Your task to perform on an android device: delete location history Image 0: 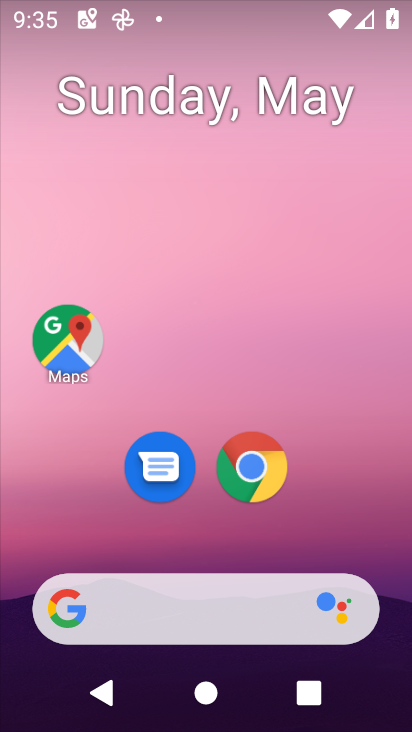
Step 0: press home button
Your task to perform on an android device: delete location history Image 1: 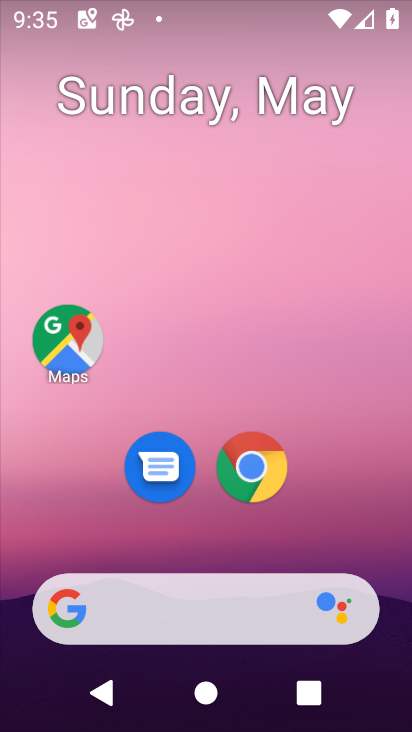
Step 1: drag from (342, 516) to (326, 191)
Your task to perform on an android device: delete location history Image 2: 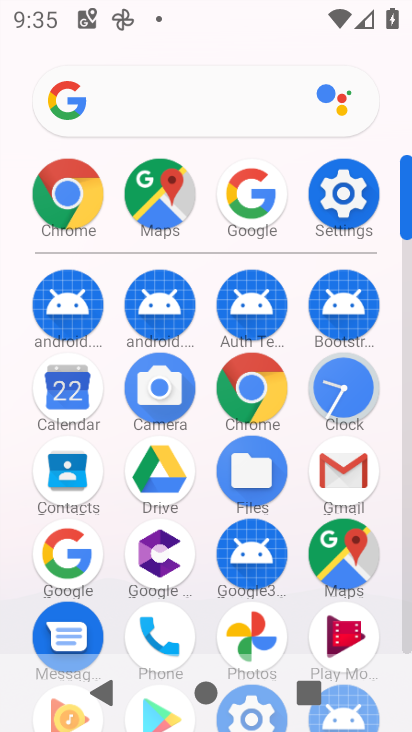
Step 2: click (355, 202)
Your task to perform on an android device: delete location history Image 3: 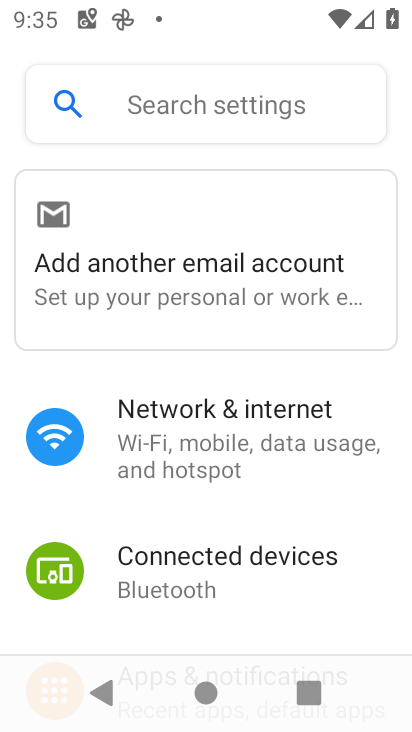
Step 3: drag from (278, 622) to (286, 312)
Your task to perform on an android device: delete location history Image 4: 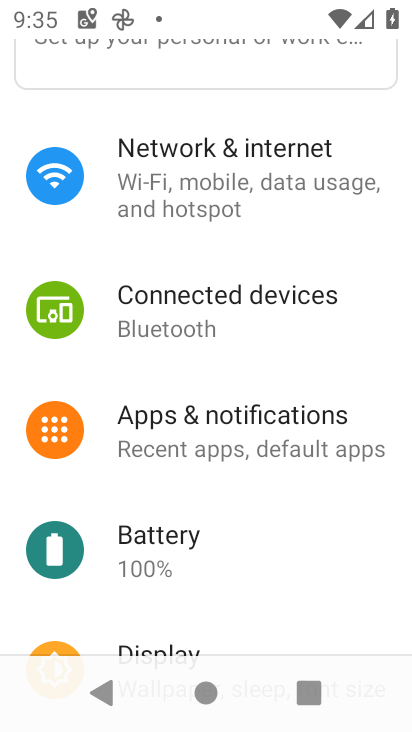
Step 4: drag from (279, 586) to (310, 263)
Your task to perform on an android device: delete location history Image 5: 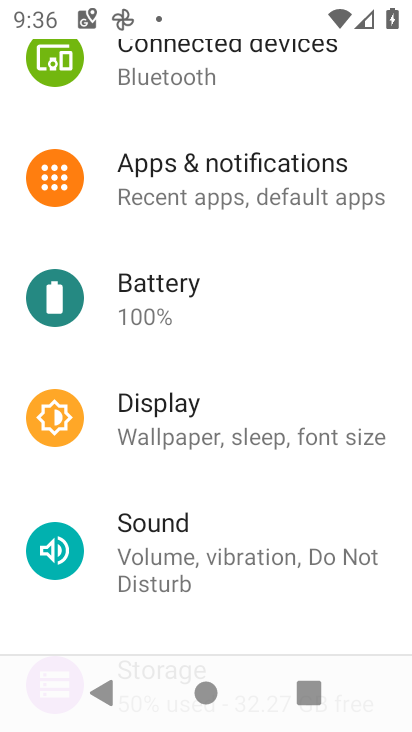
Step 5: drag from (242, 268) to (285, 152)
Your task to perform on an android device: delete location history Image 6: 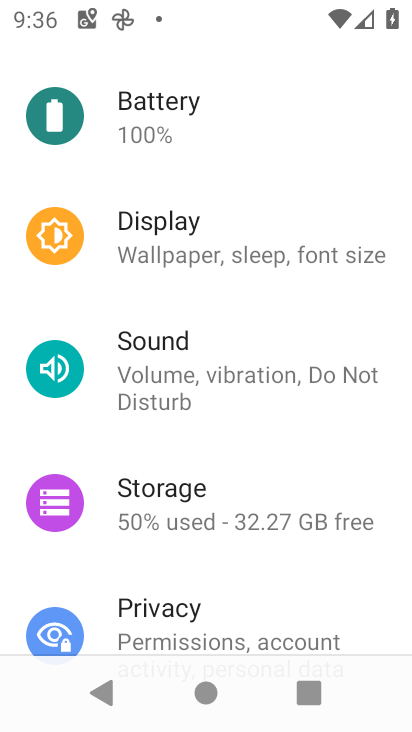
Step 6: drag from (217, 605) to (270, 245)
Your task to perform on an android device: delete location history Image 7: 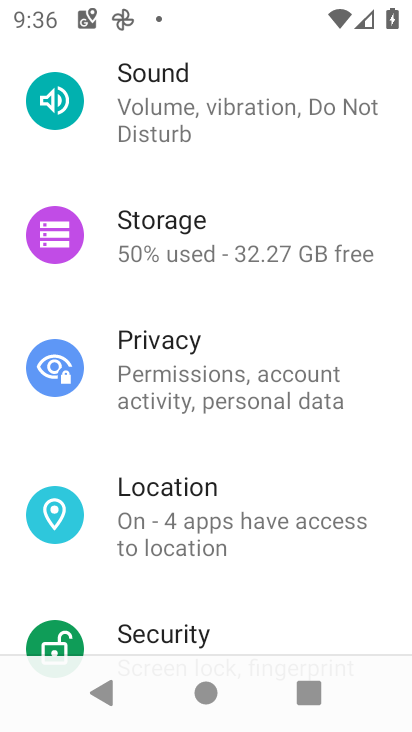
Step 7: click (215, 531)
Your task to perform on an android device: delete location history Image 8: 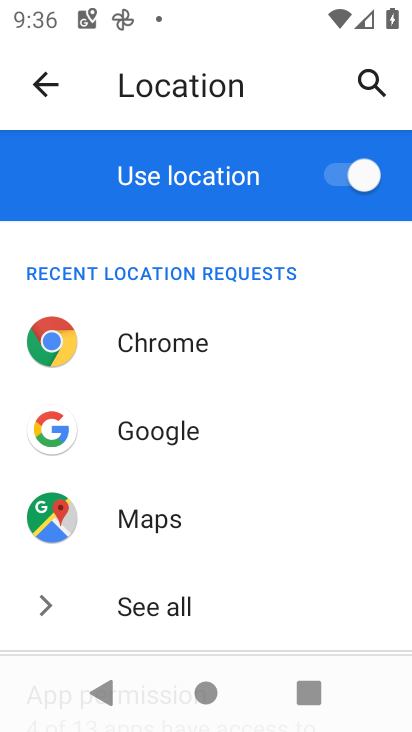
Step 8: drag from (230, 557) to (230, 253)
Your task to perform on an android device: delete location history Image 9: 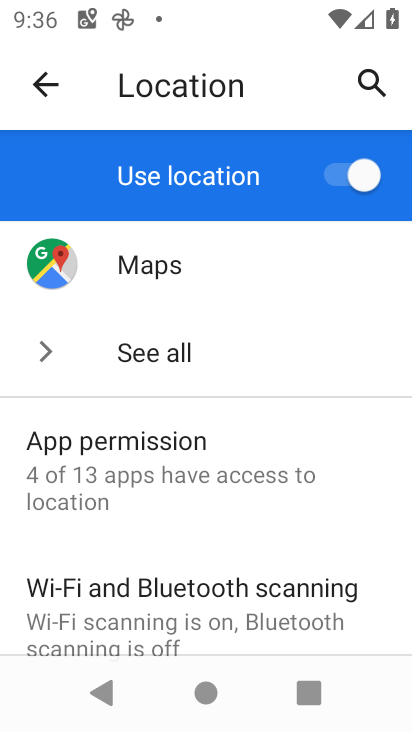
Step 9: drag from (245, 609) to (285, 323)
Your task to perform on an android device: delete location history Image 10: 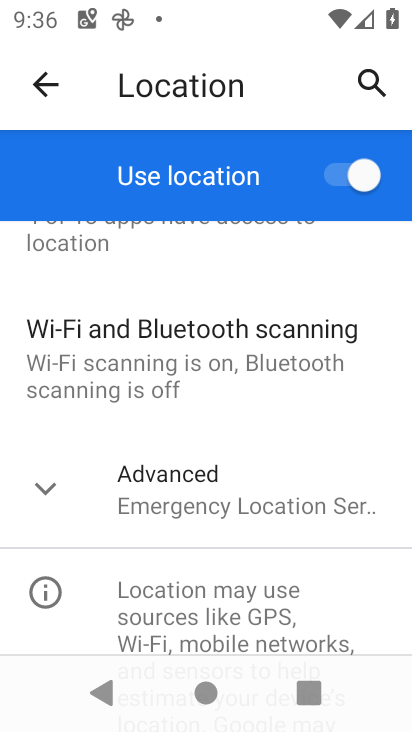
Step 10: click (230, 506)
Your task to perform on an android device: delete location history Image 11: 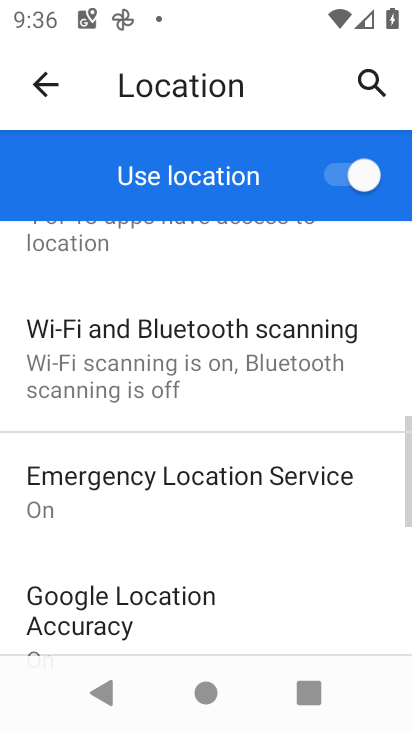
Step 11: drag from (246, 607) to (239, 355)
Your task to perform on an android device: delete location history Image 12: 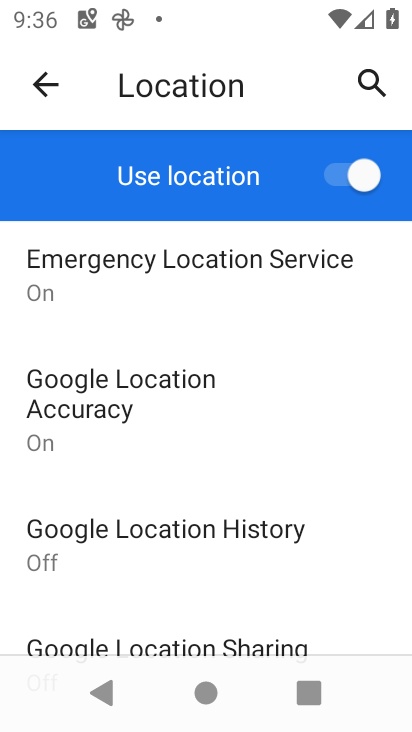
Step 12: click (217, 543)
Your task to perform on an android device: delete location history Image 13: 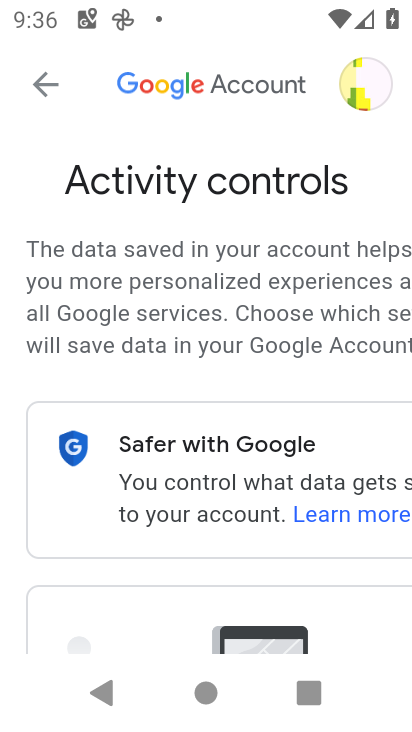
Step 13: drag from (157, 602) to (242, 17)
Your task to perform on an android device: delete location history Image 14: 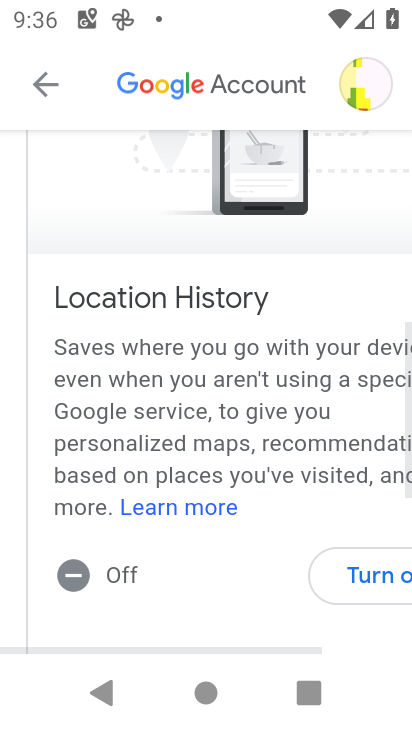
Step 14: drag from (164, 569) to (258, 202)
Your task to perform on an android device: delete location history Image 15: 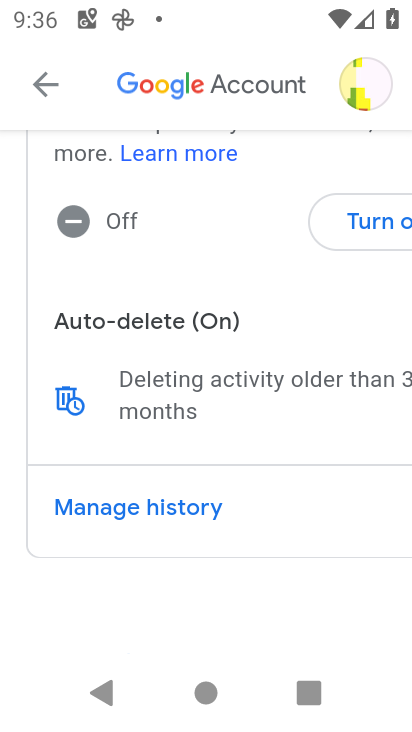
Step 15: click (168, 500)
Your task to perform on an android device: delete location history Image 16: 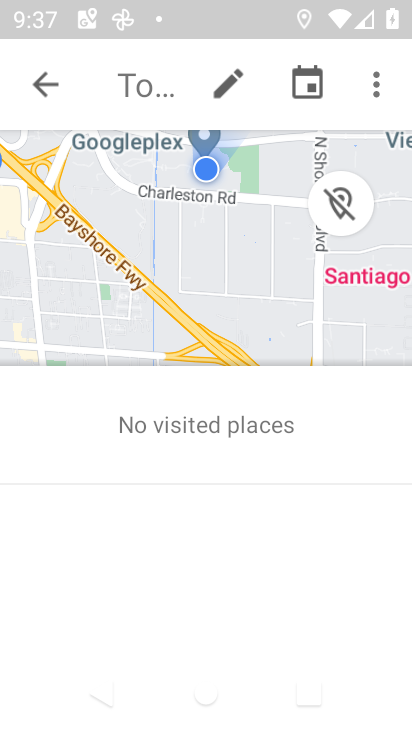
Step 16: click (390, 98)
Your task to perform on an android device: delete location history Image 17: 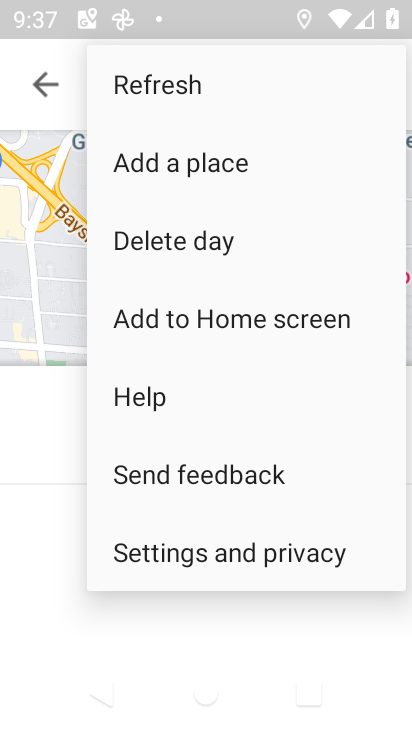
Step 17: click (255, 562)
Your task to perform on an android device: delete location history Image 18: 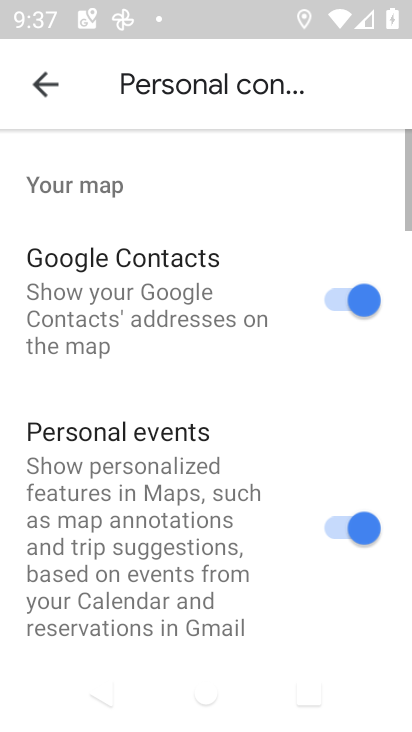
Step 18: drag from (231, 631) to (251, 228)
Your task to perform on an android device: delete location history Image 19: 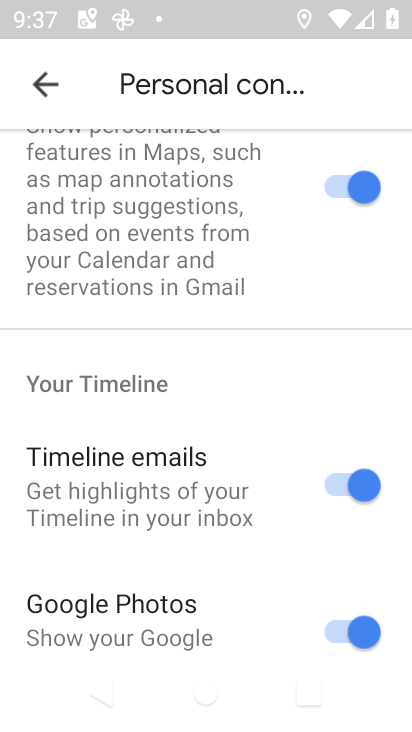
Step 19: drag from (235, 559) to (253, 211)
Your task to perform on an android device: delete location history Image 20: 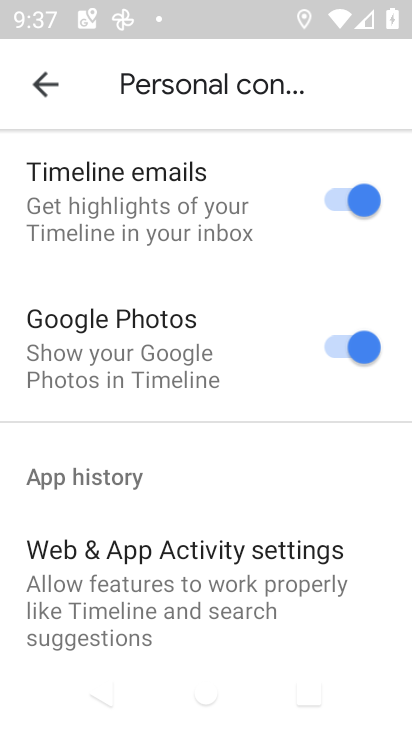
Step 20: drag from (238, 564) to (219, 206)
Your task to perform on an android device: delete location history Image 21: 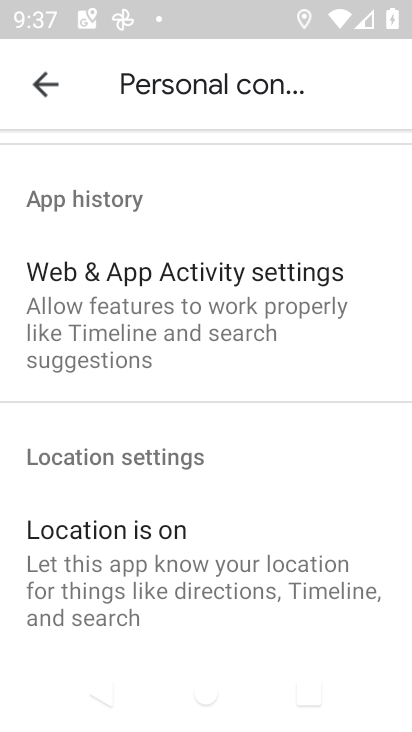
Step 21: drag from (205, 581) to (268, 160)
Your task to perform on an android device: delete location history Image 22: 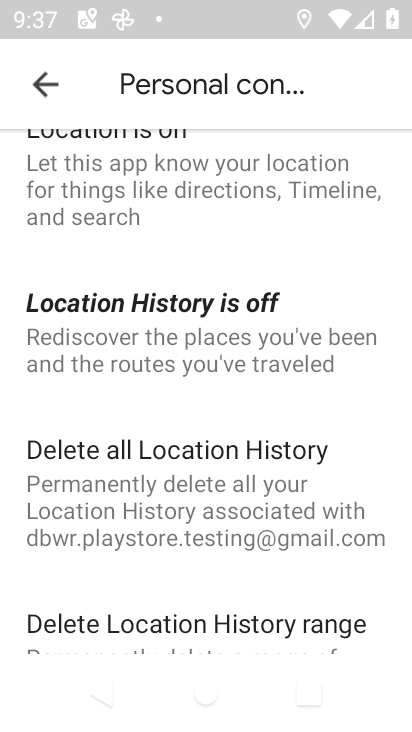
Step 22: click (180, 484)
Your task to perform on an android device: delete location history Image 23: 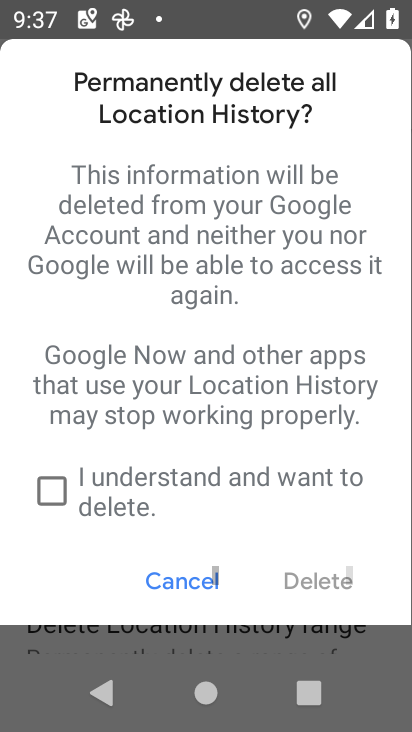
Step 23: click (62, 491)
Your task to perform on an android device: delete location history Image 24: 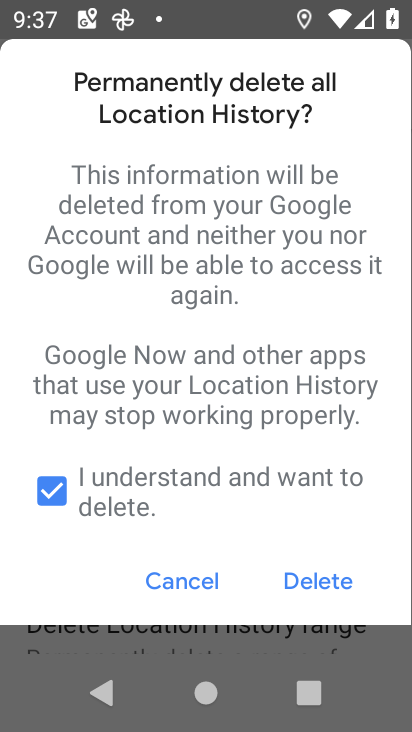
Step 24: click (312, 578)
Your task to perform on an android device: delete location history Image 25: 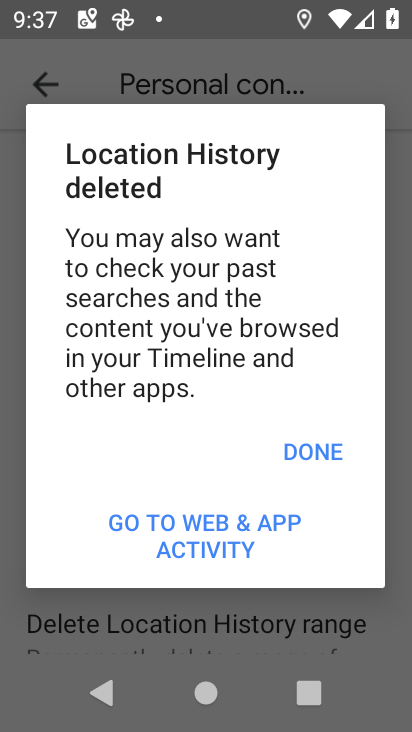
Step 25: task complete